Your task to perform on an android device: check android version Image 0: 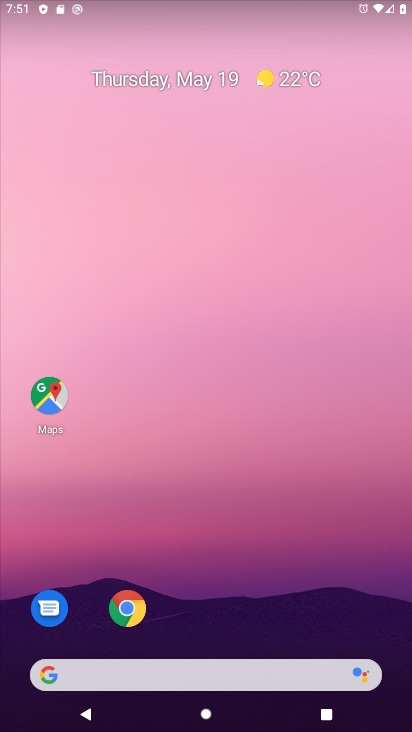
Step 0: drag from (300, 690) to (287, 16)
Your task to perform on an android device: check android version Image 1: 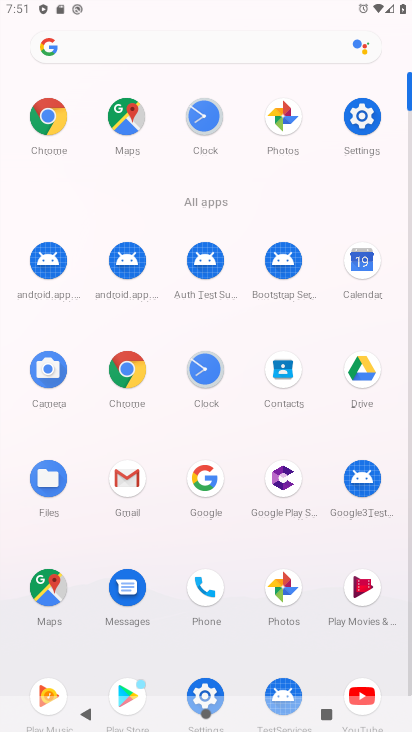
Step 1: click (202, 682)
Your task to perform on an android device: check android version Image 2: 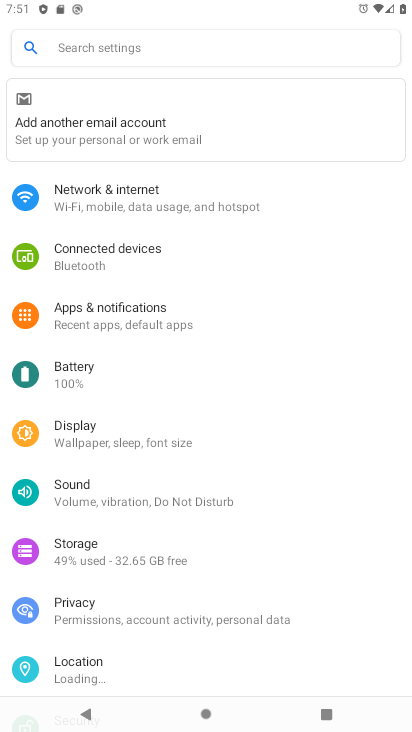
Step 2: drag from (257, 679) to (222, 56)
Your task to perform on an android device: check android version Image 3: 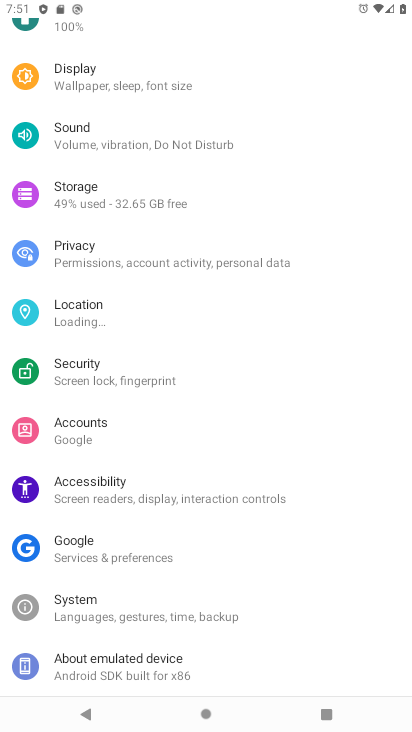
Step 3: drag from (234, 636) to (262, 84)
Your task to perform on an android device: check android version Image 4: 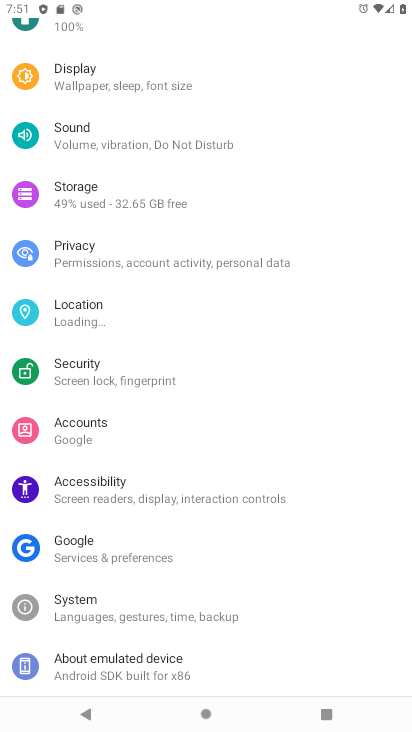
Step 4: click (149, 680)
Your task to perform on an android device: check android version Image 5: 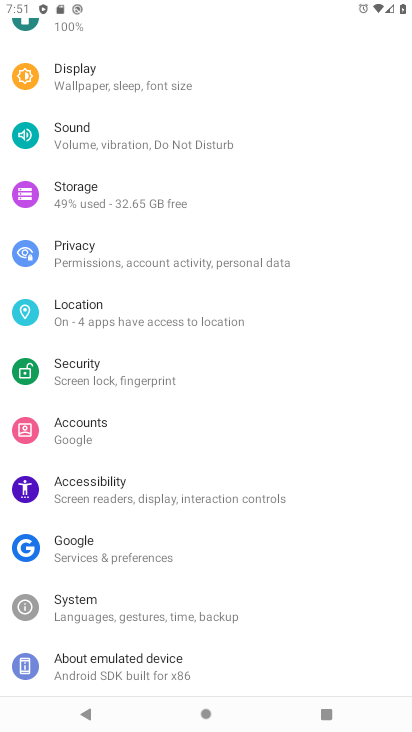
Step 5: click (156, 670)
Your task to perform on an android device: check android version Image 6: 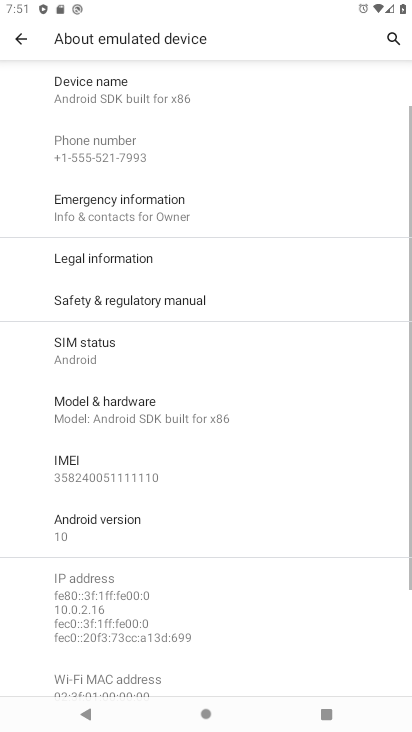
Step 6: task complete